Your task to perform on an android device: Search for vegetarian restaurants on Maps Image 0: 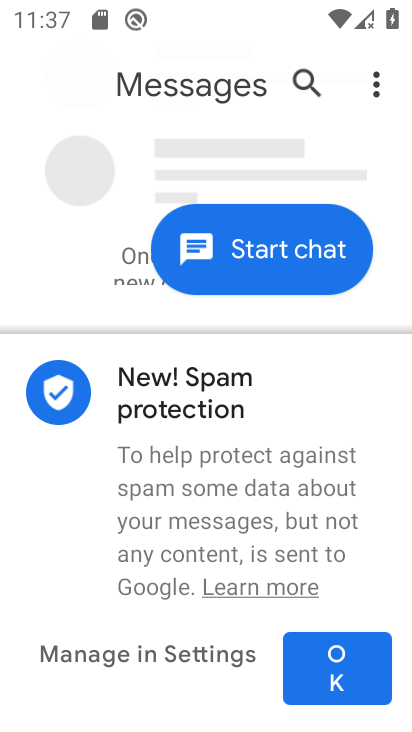
Step 0: click (350, 680)
Your task to perform on an android device: Search for vegetarian restaurants on Maps Image 1: 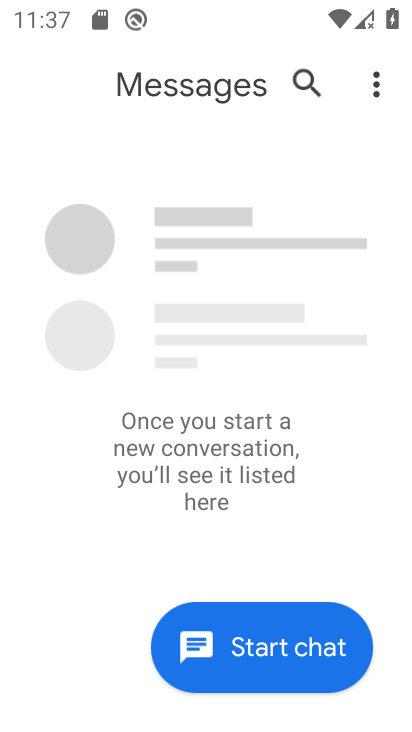
Step 1: press home button
Your task to perform on an android device: Search for vegetarian restaurants on Maps Image 2: 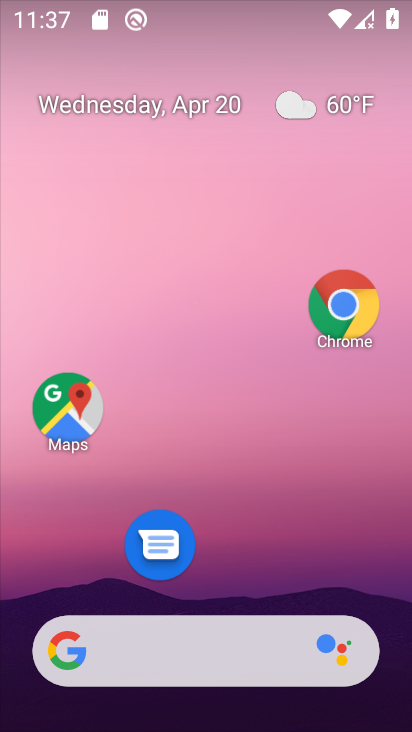
Step 2: click (46, 412)
Your task to perform on an android device: Search for vegetarian restaurants on Maps Image 3: 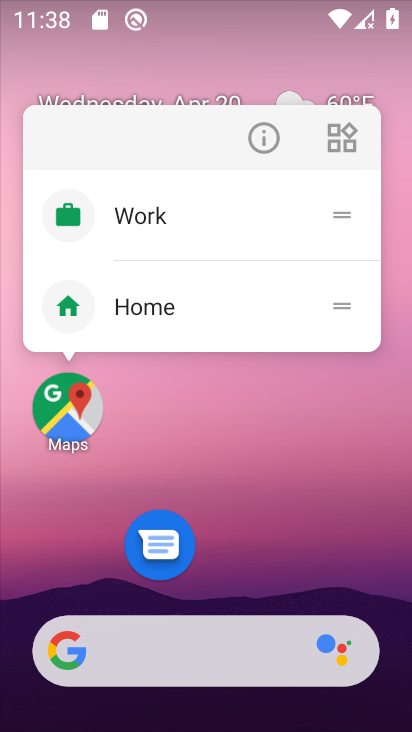
Step 3: click (46, 412)
Your task to perform on an android device: Search for vegetarian restaurants on Maps Image 4: 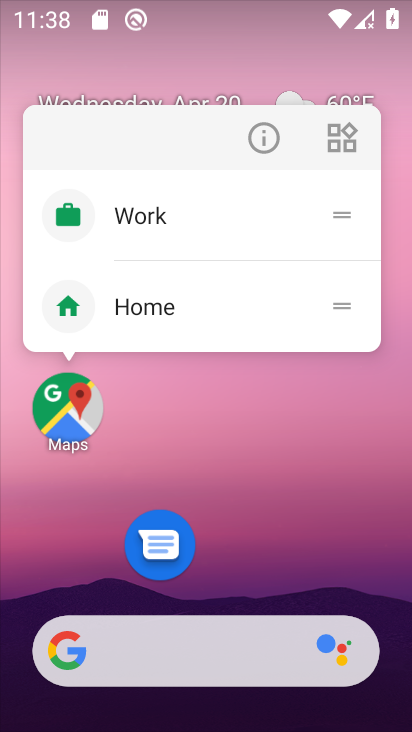
Step 4: click (83, 424)
Your task to perform on an android device: Search for vegetarian restaurants on Maps Image 5: 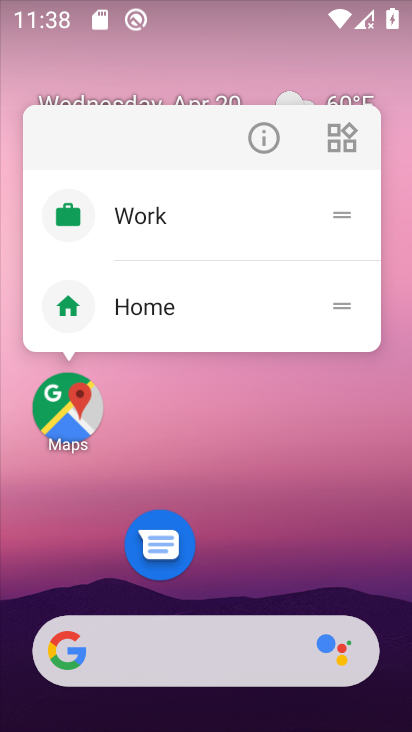
Step 5: click (83, 424)
Your task to perform on an android device: Search for vegetarian restaurants on Maps Image 6: 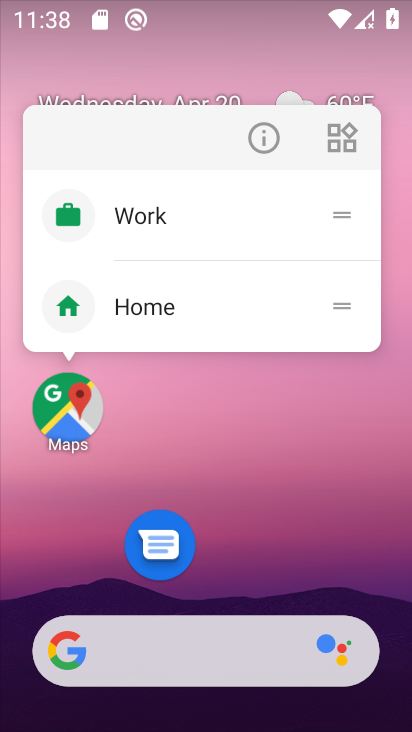
Step 6: click (56, 426)
Your task to perform on an android device: Search for vegetarian restaurants on Maps Image 7: 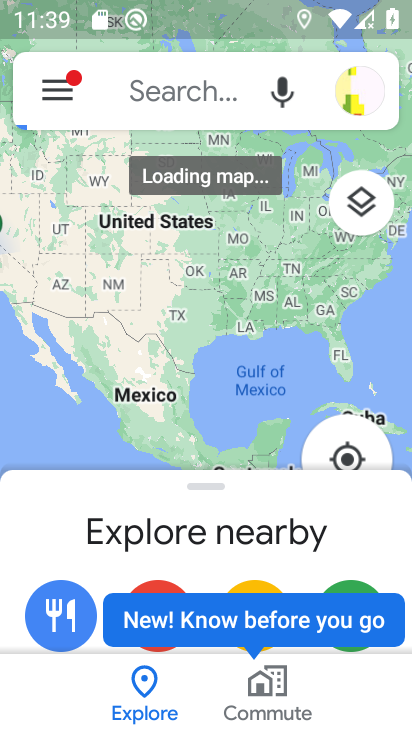
Step 7: click (173, 92)
Your task to perform on an android device: Search for vegetarian restaurants on Maps Image 8: 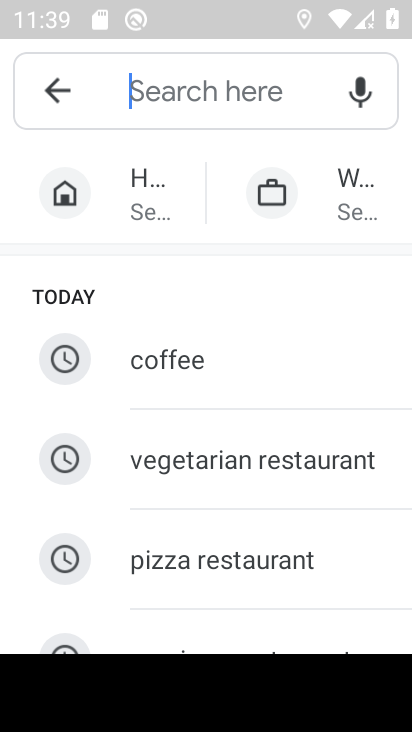
Step 8: click (268, 473)
Your task to perform on an android device: Search for vegetarian restaurants on Maps Image 9: 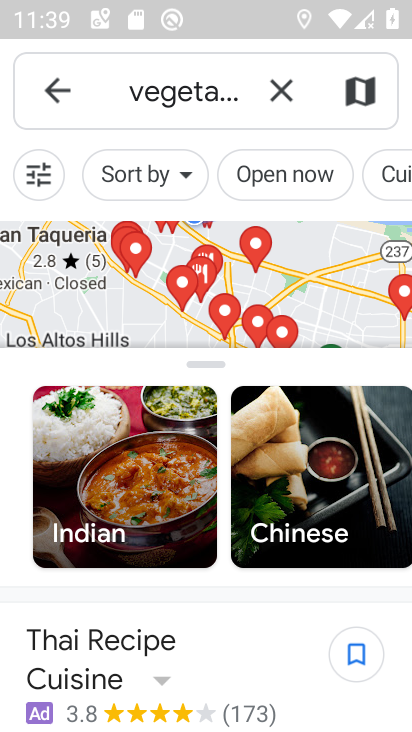
Step 9: task complete